Your task to perform on an android device: turn off data saver in the chrome app Image 0: 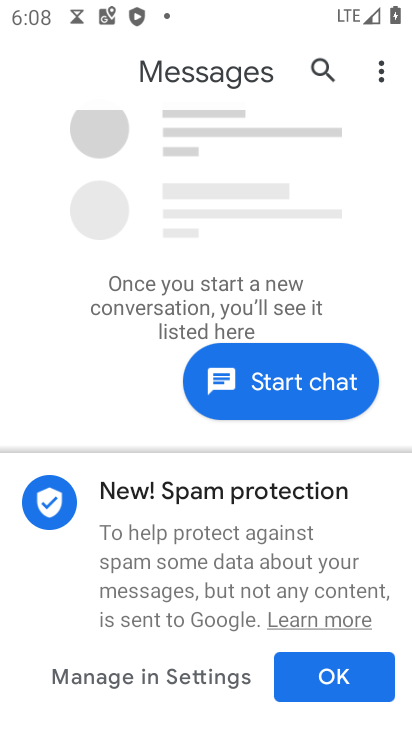
Step 0: press home button
Your task to perform on an android device: turn off data saver in the chrome app Image 1: 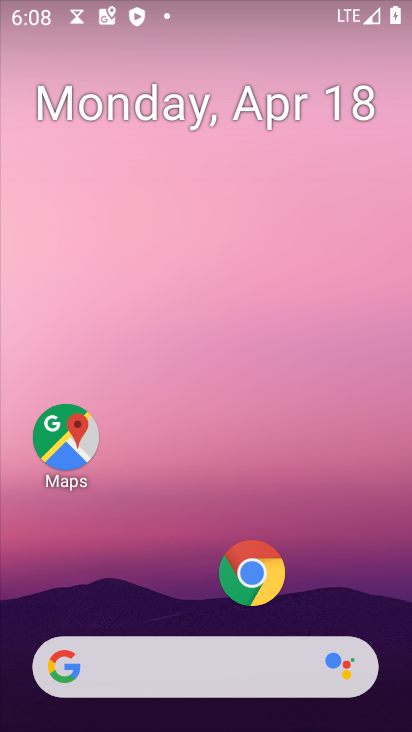
Step 1: click (244, 575)
Your task to perform on an android device: turn off data saver in the chrome app Image 2: 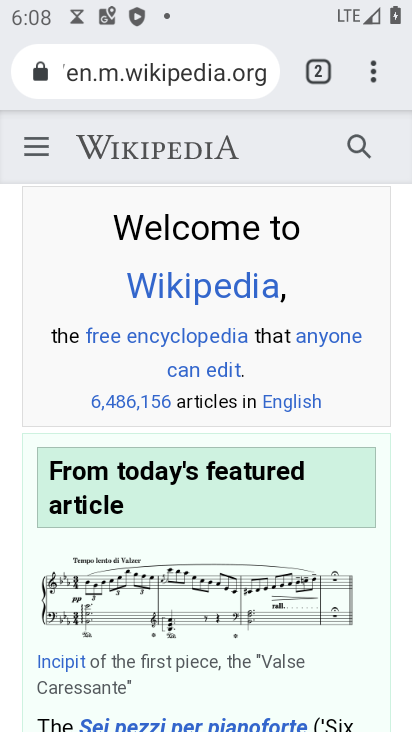
Step 2: click (376, 81)
Your task to perform on an android device: turn off data saver in the chrome app Image 3: 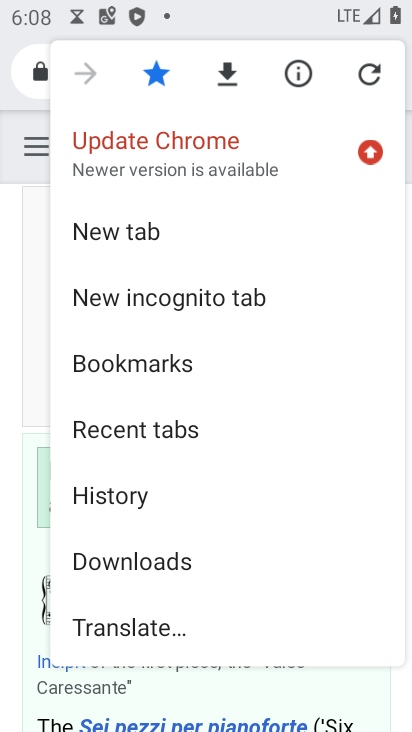
Step 3: click (183, 421)
Your task to perform on an android device: turn off data saver in the chrome app Image 4: 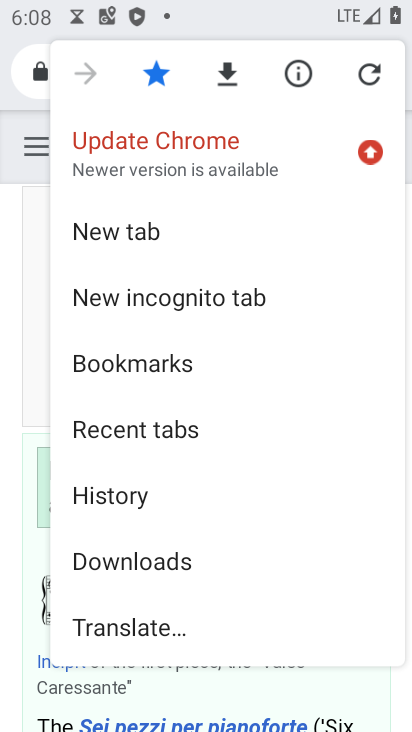
Step 4: drag from (200, 339) to (225, 211)
Your task to perform on an android device: turn off data saver in the chrome app Image 5: 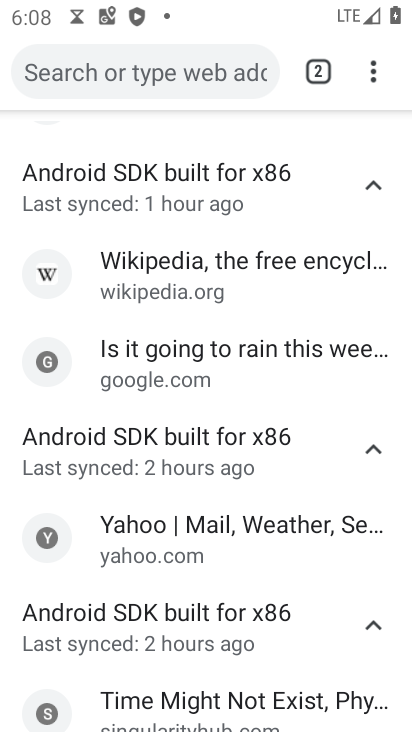
Step 5: click (365, 76)
Your task to perform on an android device: turn off data saver in the chrome app Image 6: 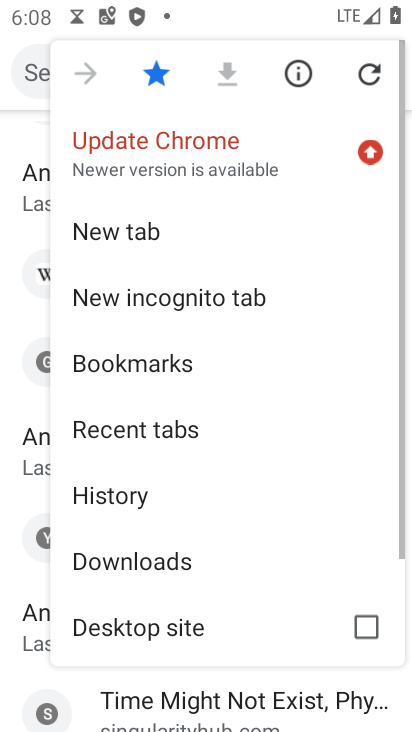
Step 6: drag from (130, 583) to (207, 310)
Your task to perform on an android device: turn off data saver in the chrome app Image 7: 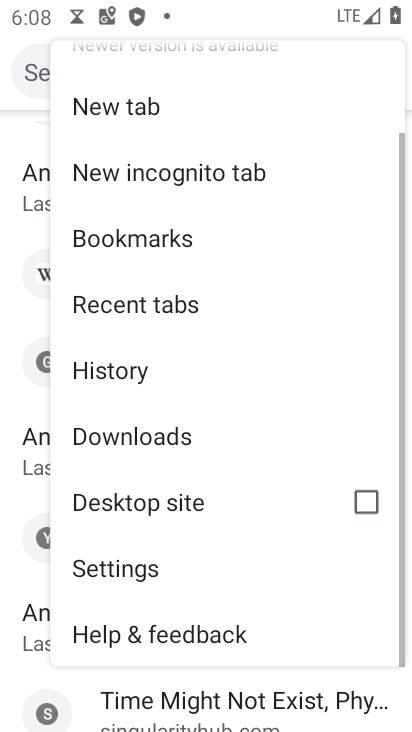
Step 7: click (125, 563)
Your task to perform on an android device: turn off data saver in the chrome app Image 8: 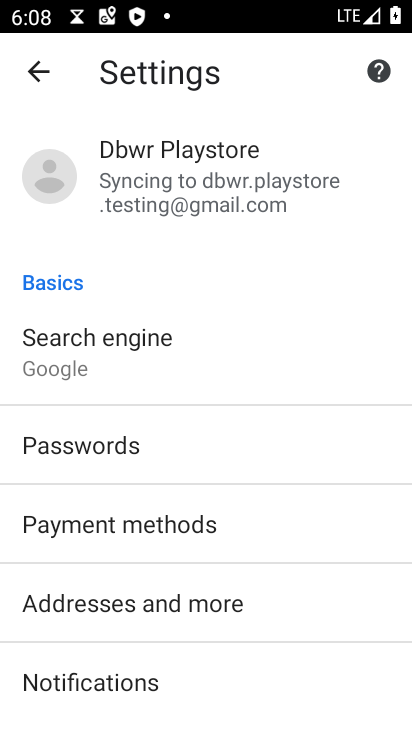
Step 8: drag from (113, 591) to (177, 250)
Your task to perform on an android device: turn off data saver in the chrome app Image 9: 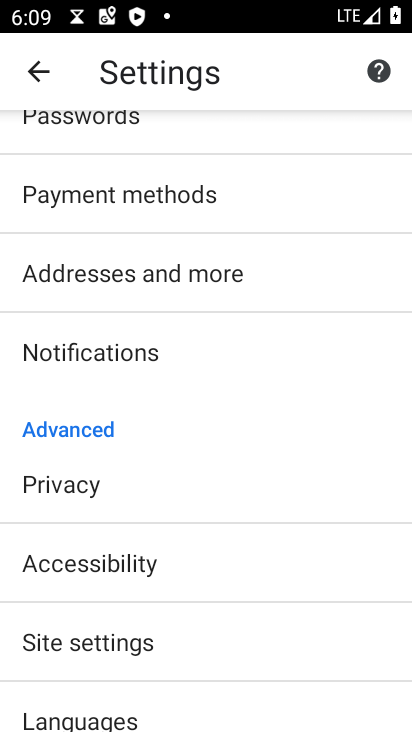
Step 9: drag from (91, 655) to (141, 406)
Your task to perform on an android device: turn off data saver in the chrome app Image 10: 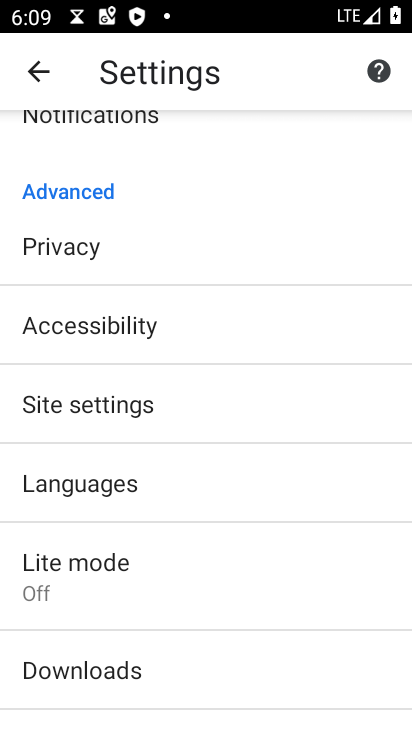
Step 10: click (73, 564)
Your task to perform on an android device: turn off data saver in the chrome app Image 11: 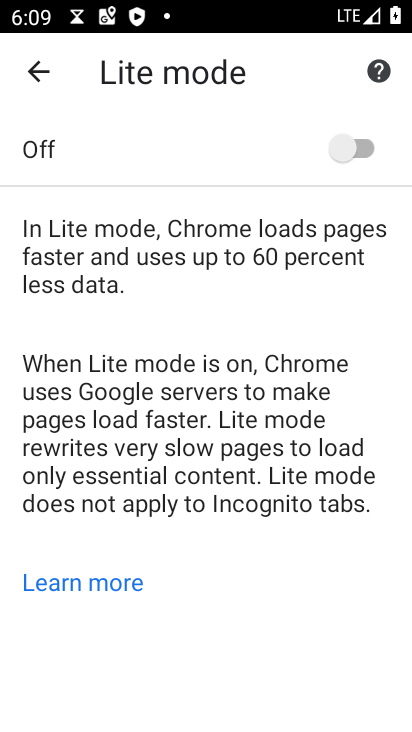
Step 11: task complete